Your task to perform on an android device: Open Google Image 0: 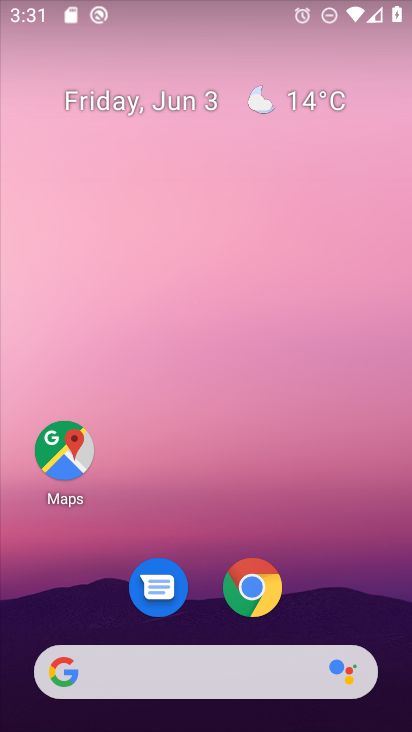
Step 0: drag from (217, 725) to (201, 3)
Your task to perform on an android device: Open Google Image 1: 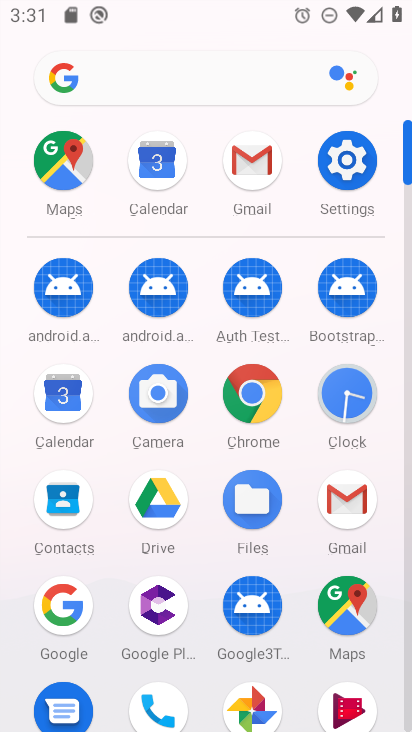
Step 1: click (61, 613)
Your task to perform on an android device: Open Google Image 2: 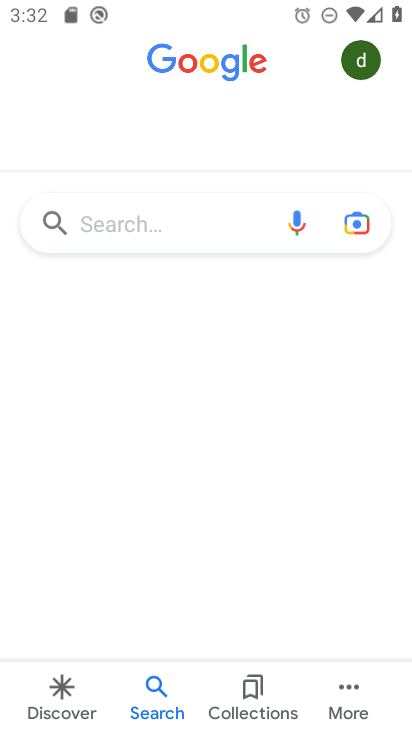
Step 2: task complete